Your task to perform on an android device: install app "Gmail" Image 0: 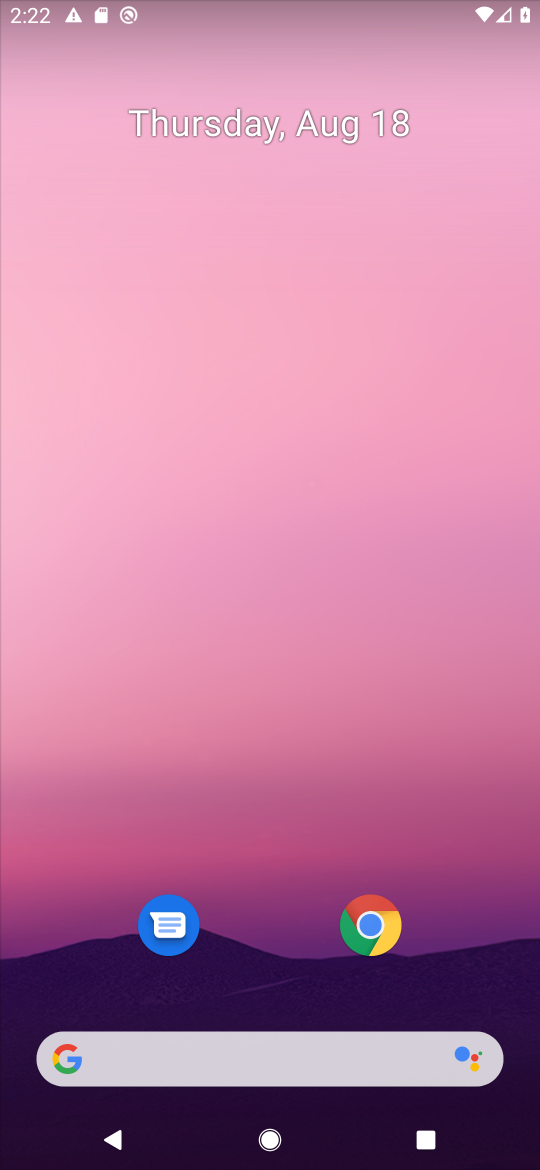
Step 0: drag from (253, 834) to (253, 161)
Your task to perform on an android device: install app "Gmail" Image 1: 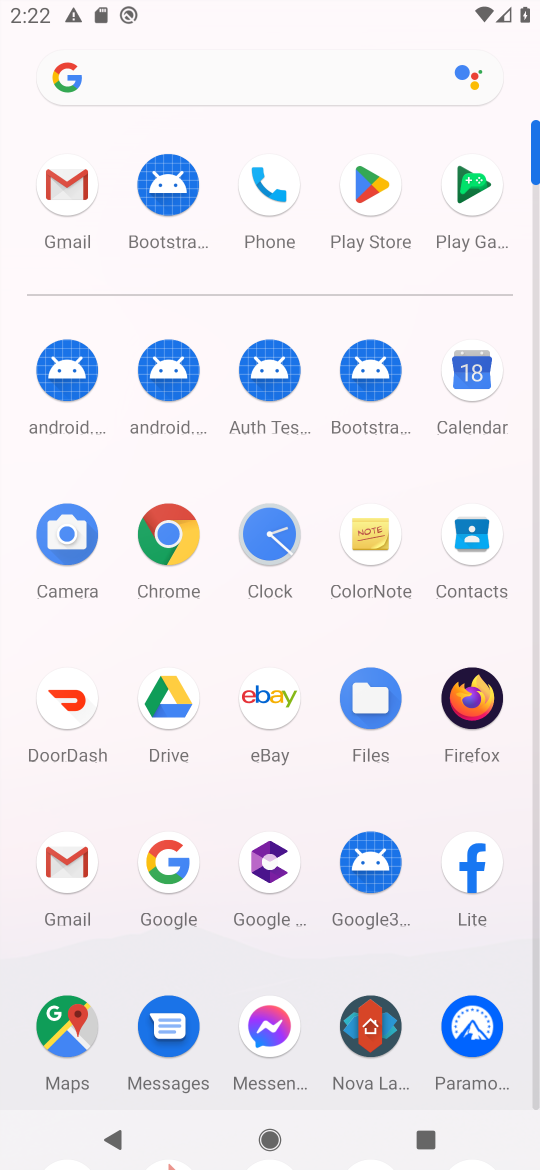
Step 1: click (373, 192)
Your task to perform on an android device: install app "Gmail" Image 2: 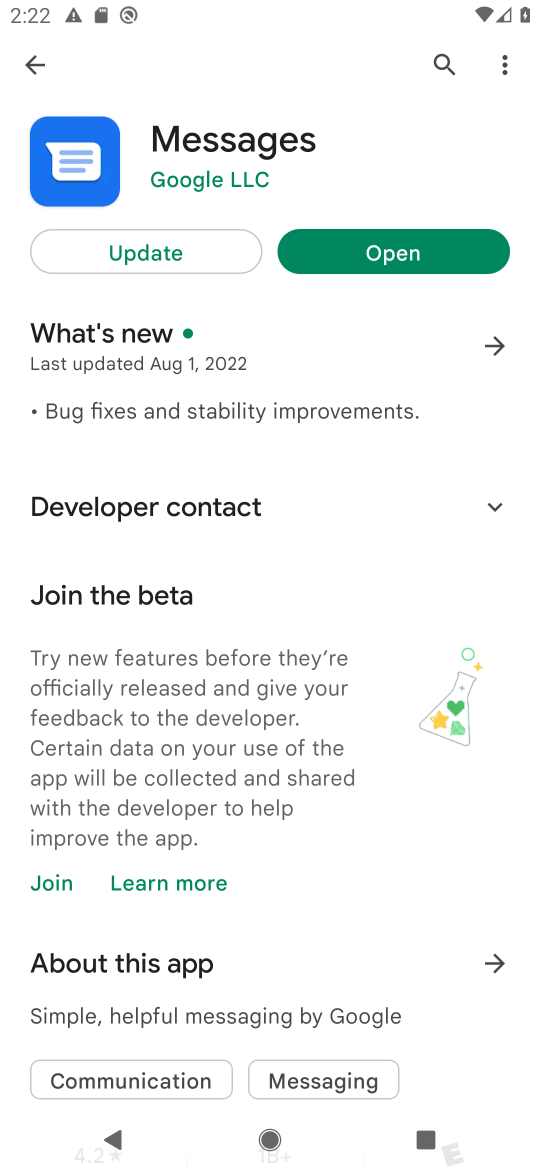
Step 2: click (41, 66)
Your task to perform on an android device: install app "Gmail" Image 3: 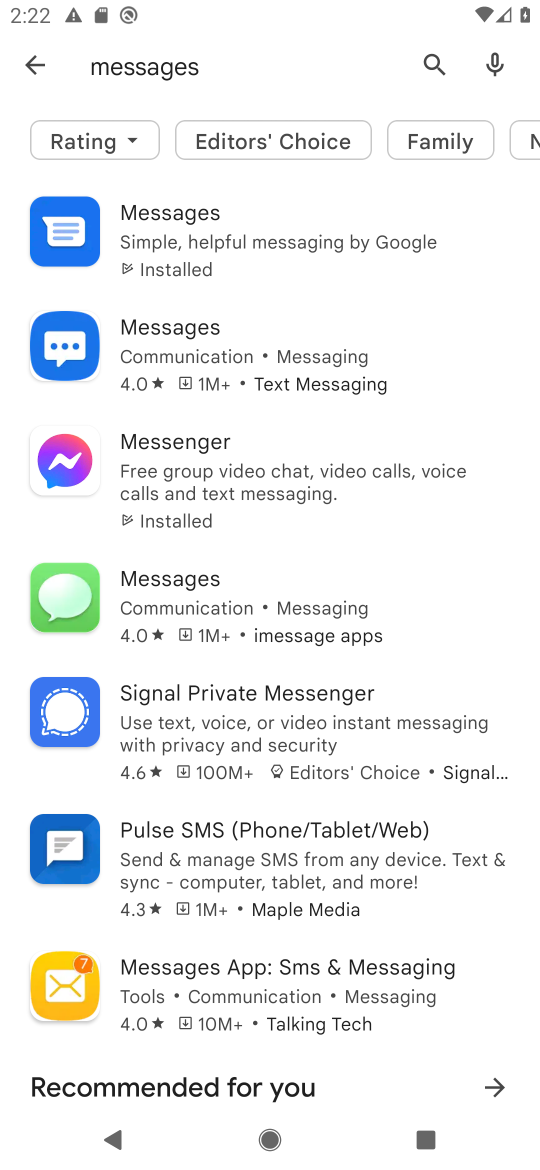
Step 3: click (33, 66)
Your task to perform on an android device: install app "Gmail" Image 4: 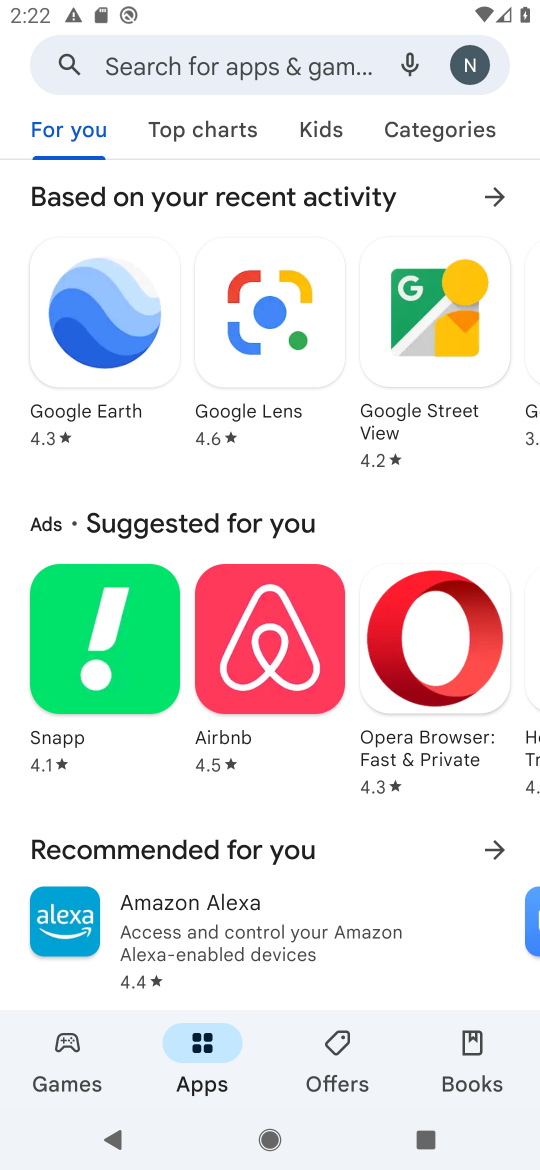
Step 4: click (199, 57)
Your task to perform on an android device: install app "Gmail" Image 5: 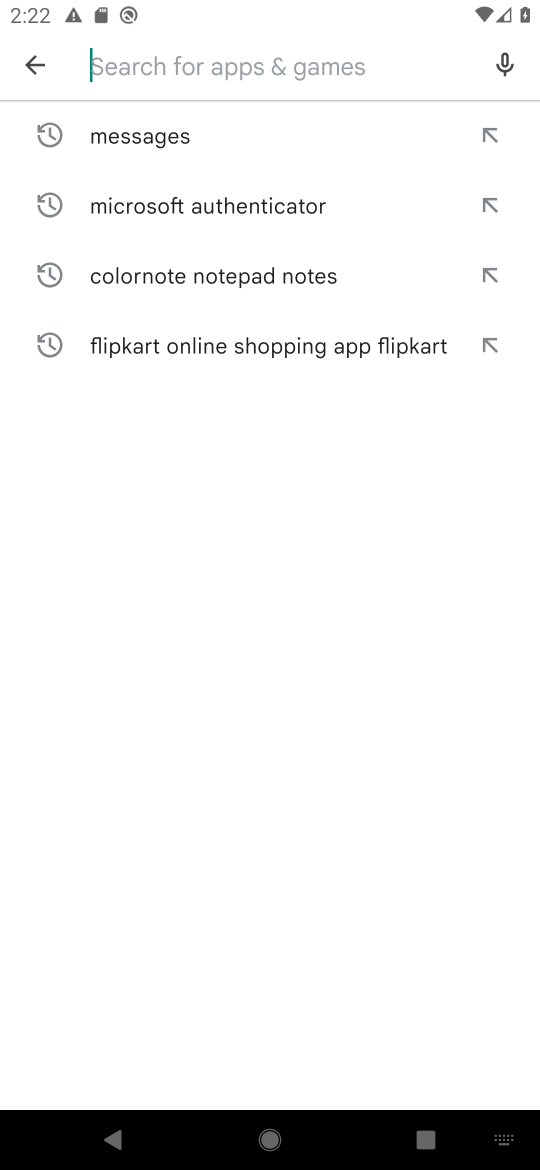
Step 5: type "Gmail"
Your task to perform on an android device: install app "Gmail" Image 6: 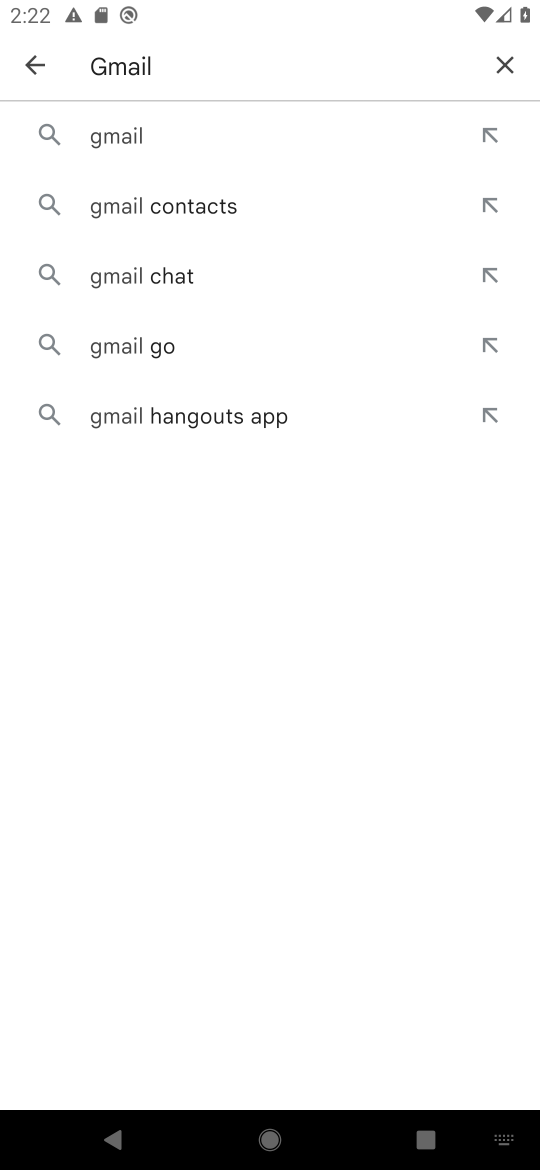
Step 6: click (122, 138)
Your task to perform on an android device: install app "Gmail" Image 7: 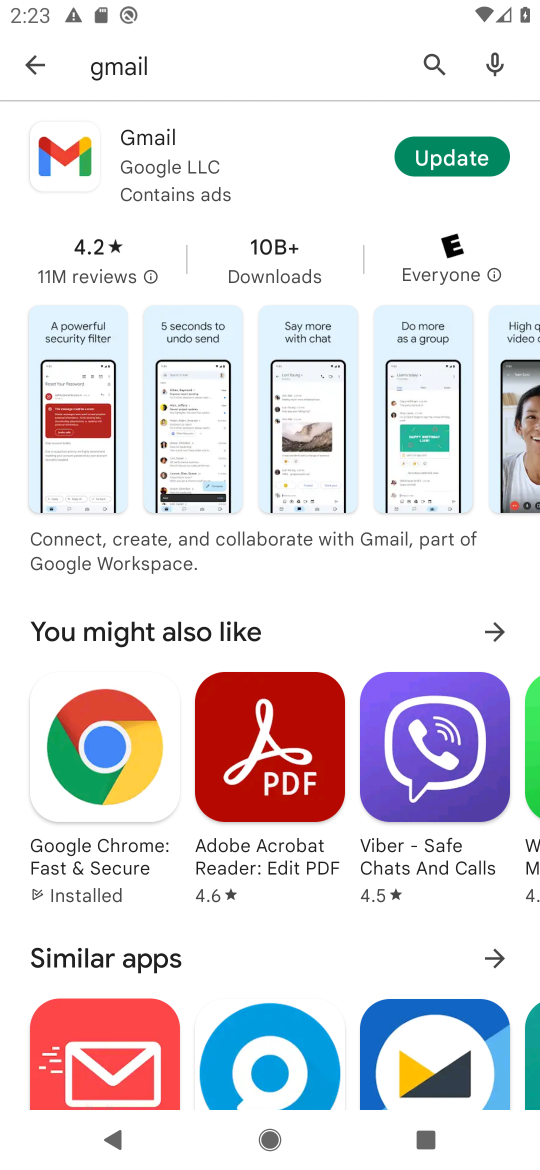
Step 7: task complete